Your task to perform on an android device: What's the weather like in New York? Image 0: 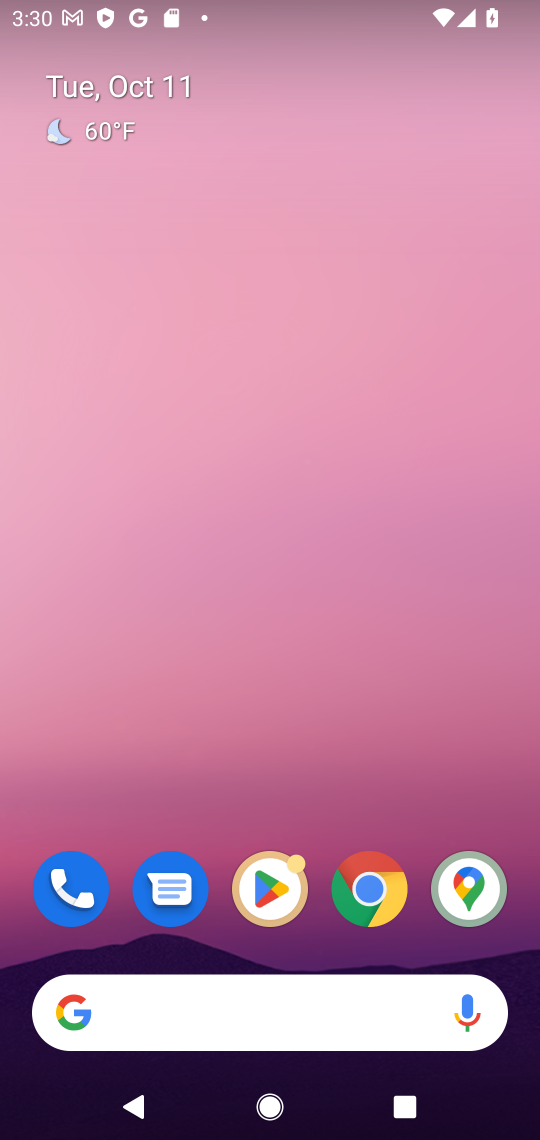
Step 0: drag from (167, 931) to (178, 318)
Your task to perform on an android device: What's the weather like in New York? Image 1: 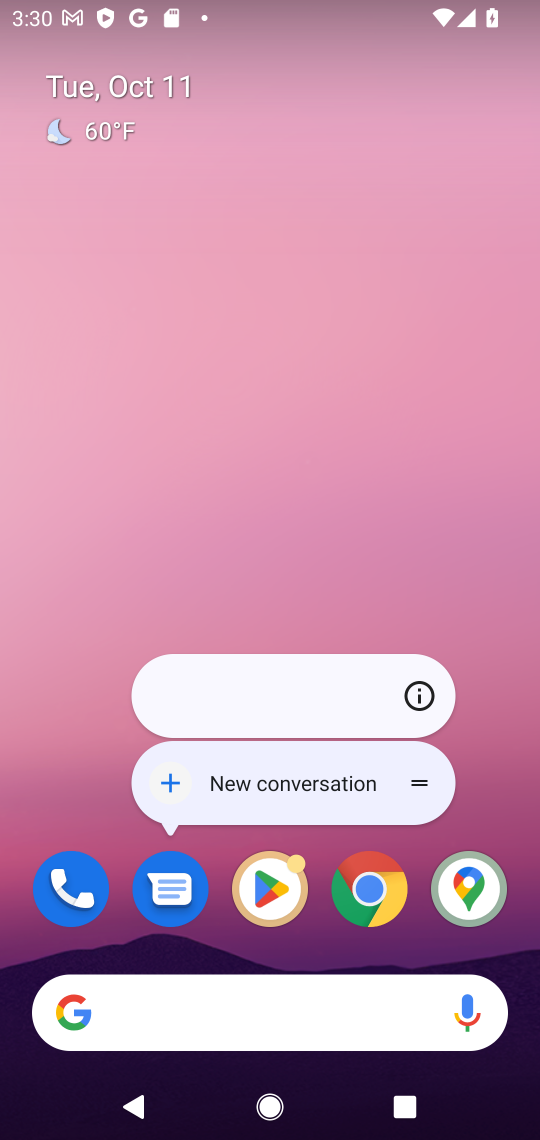
Step 1: click (317, 527)
Your task to perform on an android device: What's the weather like in New York? Image 2: 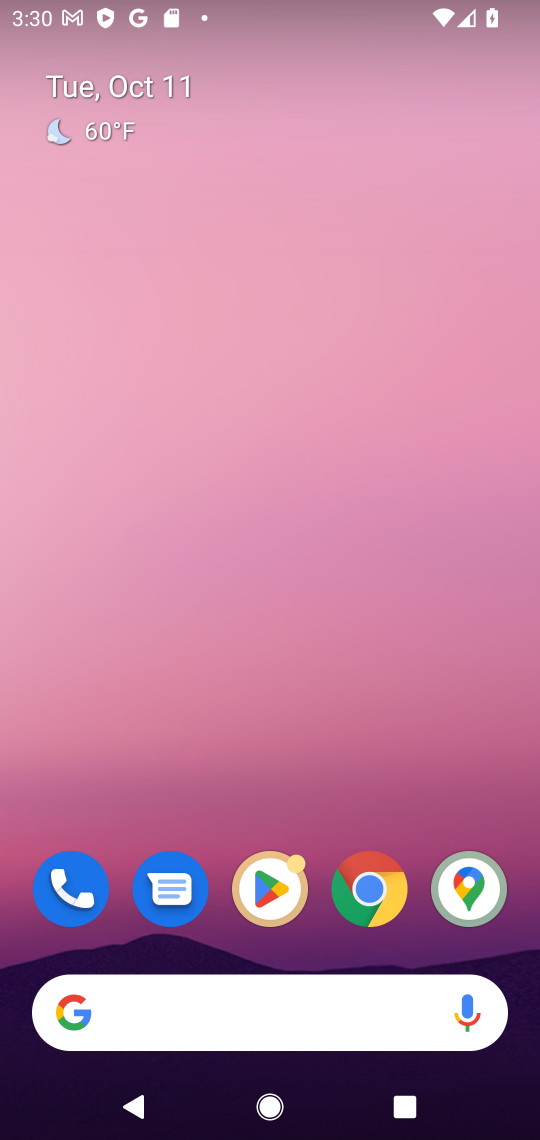
Step 2: drag from (306, 985) to (317, 50)
Your task to perform on an android device: What's the weather like in New York? Image 3: 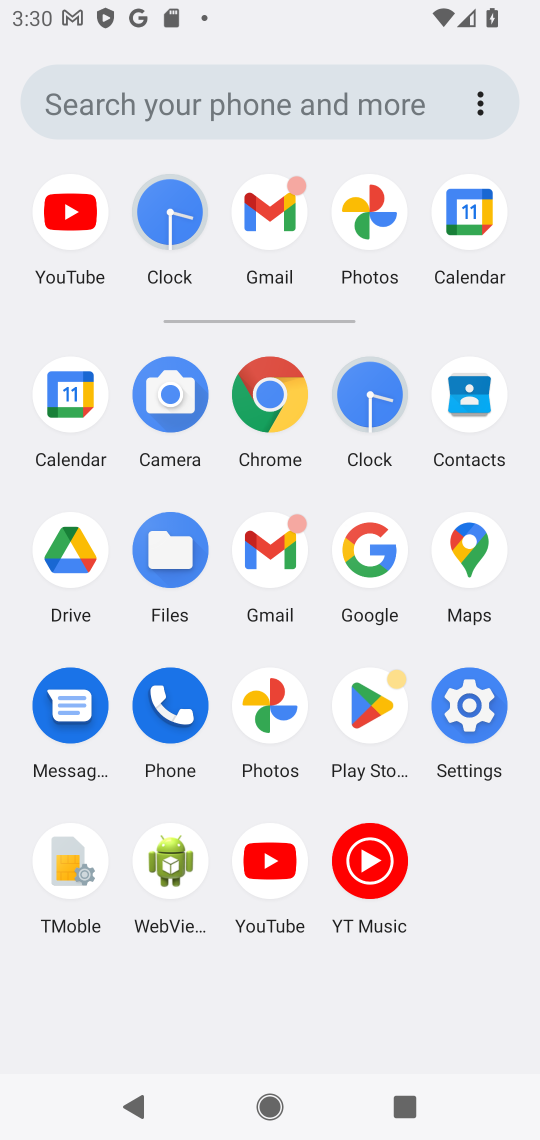
Step 3: click (360, 548)
Your task to perform on an android device: What's the weather like in New York? Image 4: 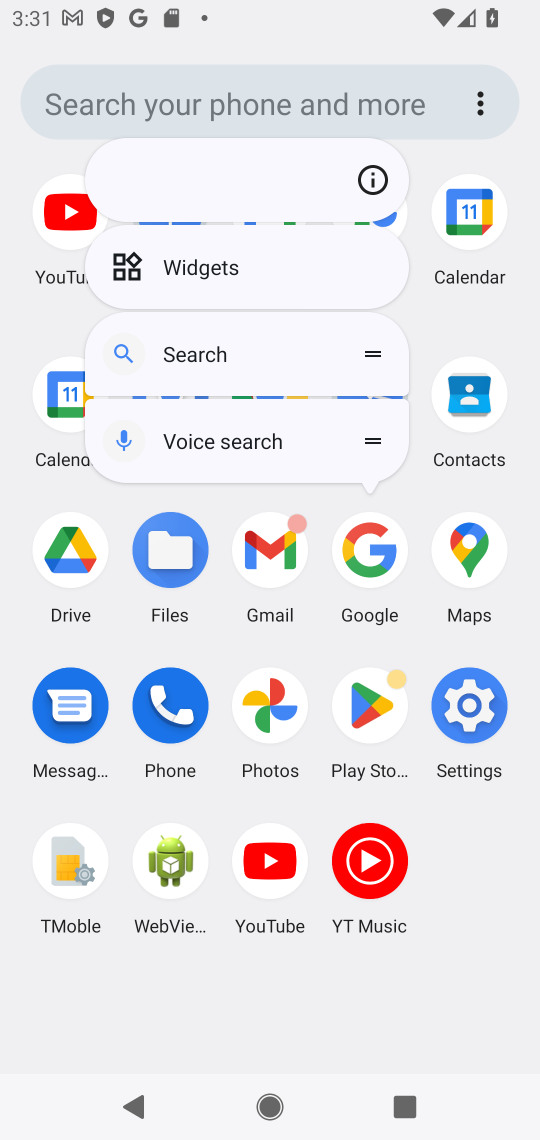
Step 4: click (368, 536)
Your task to perform on an android device: What's the weather like in New York? Image 5: 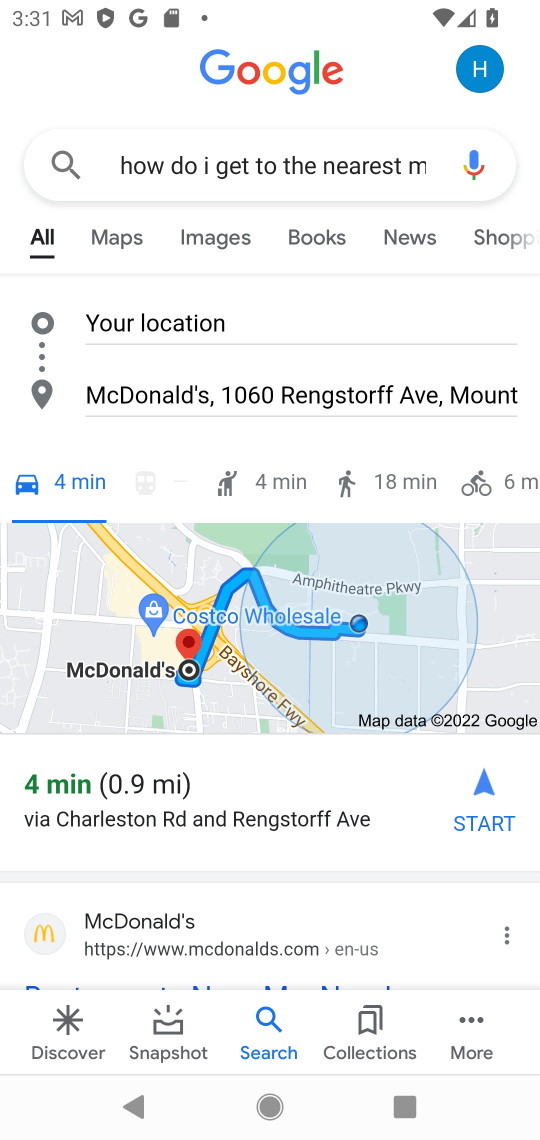
Step 5: click (333, 169)
Your task to perform on an android device: What's the weather like in New York? Image 6: 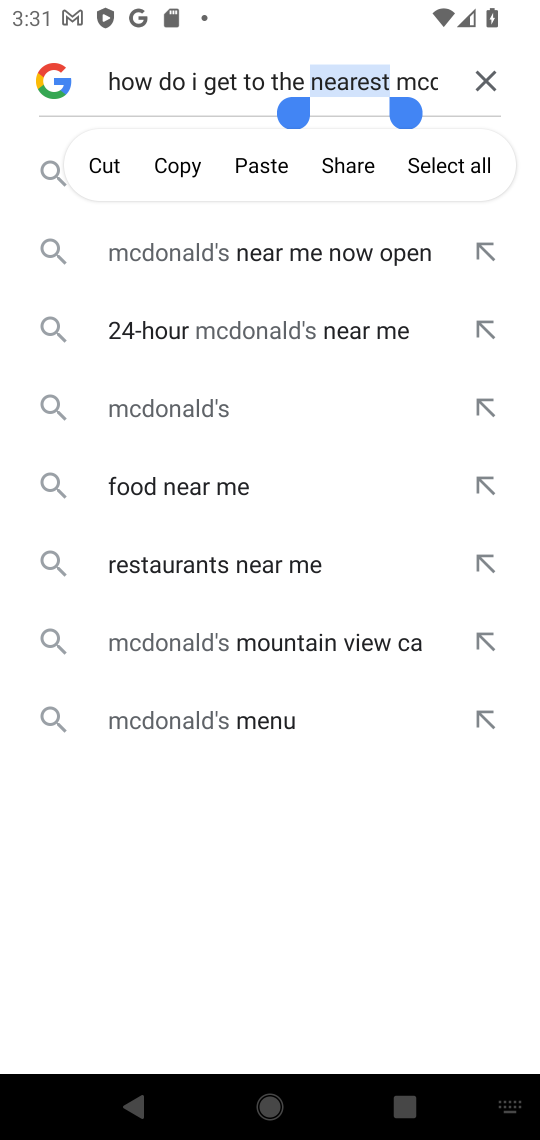
Step 6: click (478, 82)
Your task to perform on an android device: What's the weather like in New York? Image 7: 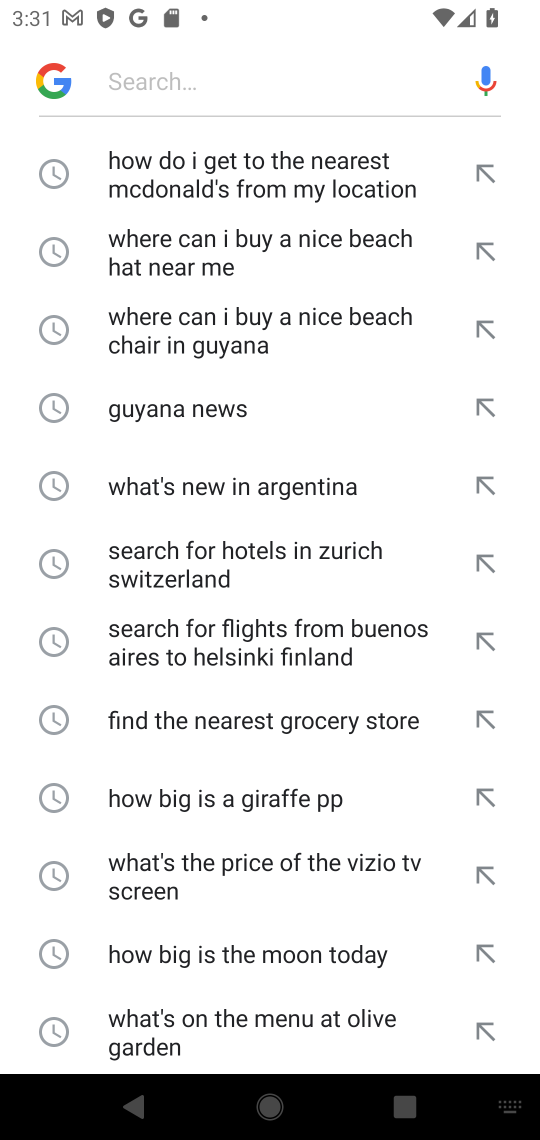
Step 7: click (279, 78)
Your task to perform on an android device: What's the weather like in New York? Image 8: 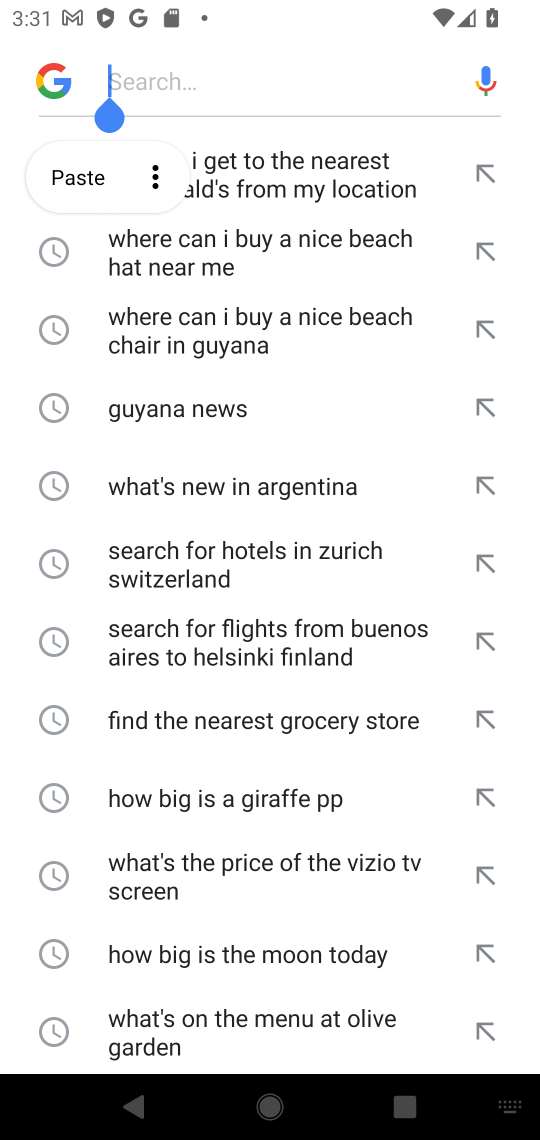
Step 8: type "What's the weather like in New York? "
Your task to perform on an android device: What's the weather like in New York? Image 9: 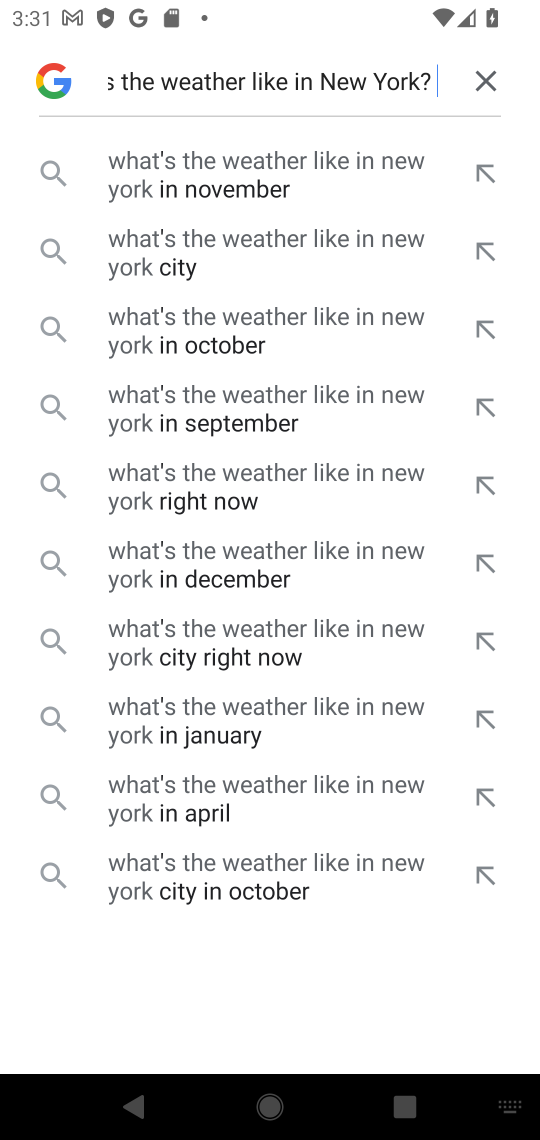
Step 9: click (221, 178)
Your task to perform on an android device: What's the weather like in New York? Image 10: 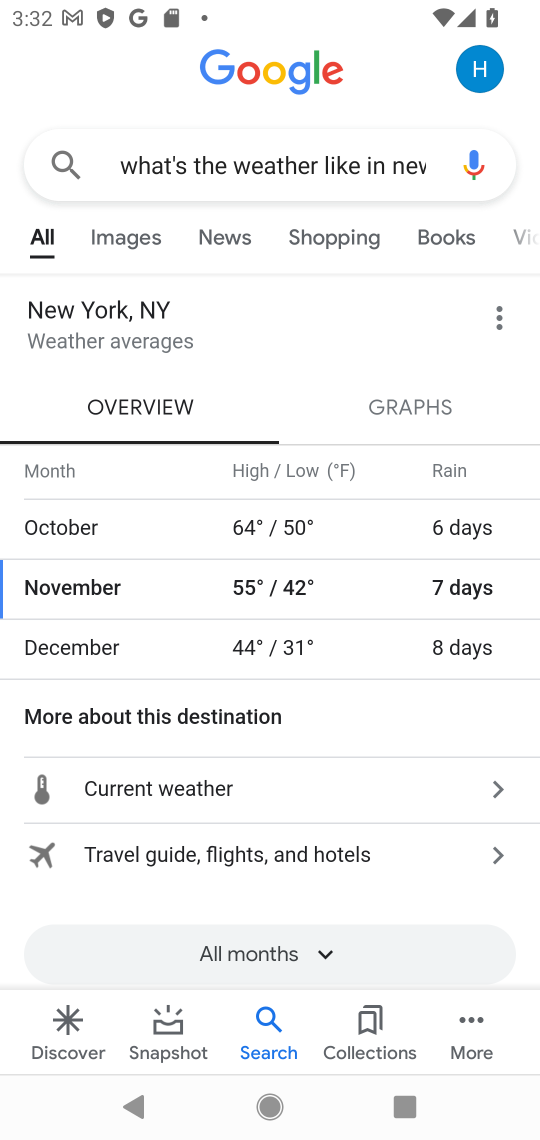
Step 10: task complete